Your task to perform on an android device: Open the map Image 0: 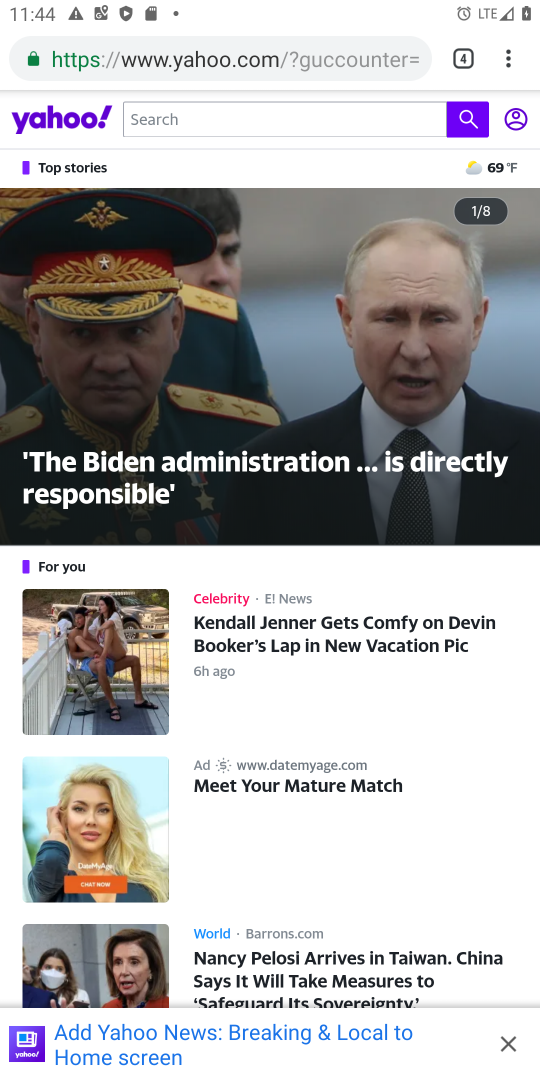
Step 0: press home button
Your task to perform on an android device: Open the map Image 1: 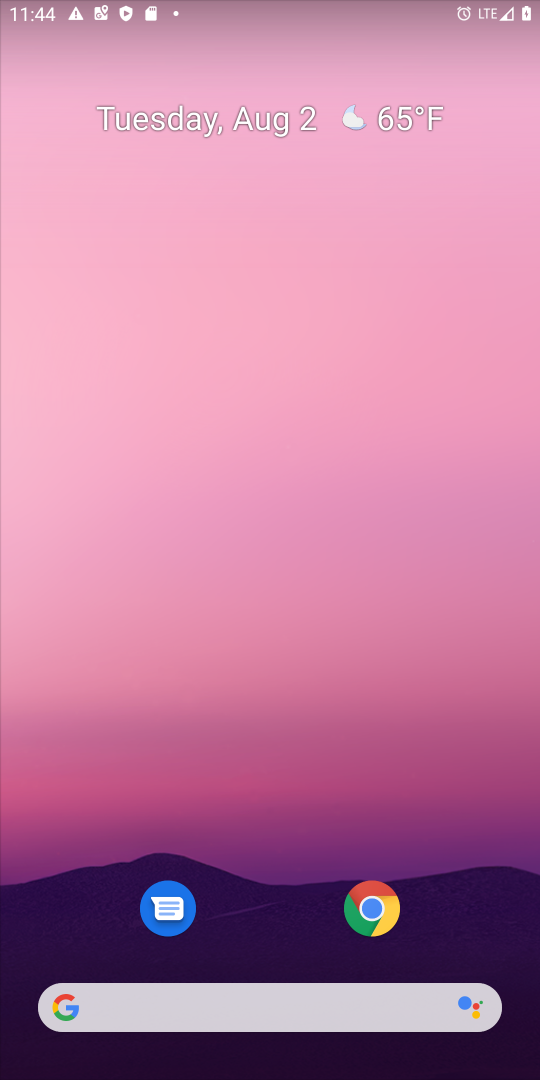
Step 1: drag from (290, 653) to (407, 189)
Your task to perform on an android device: Open the map Image 2: 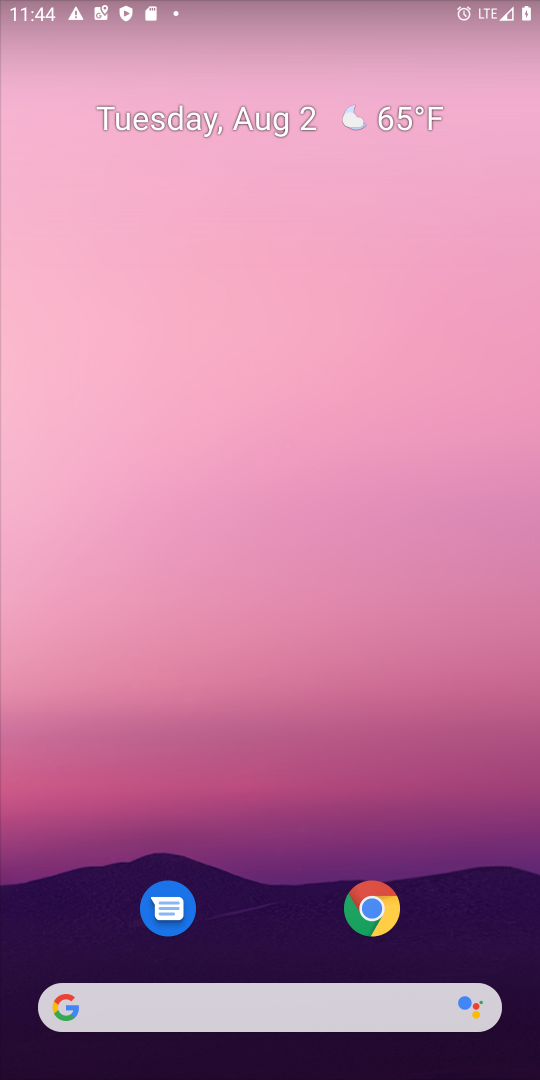
Step 2: drag from (264, 710) to (269, 2)
Your task to perform on an android device: Open the map Image 3: 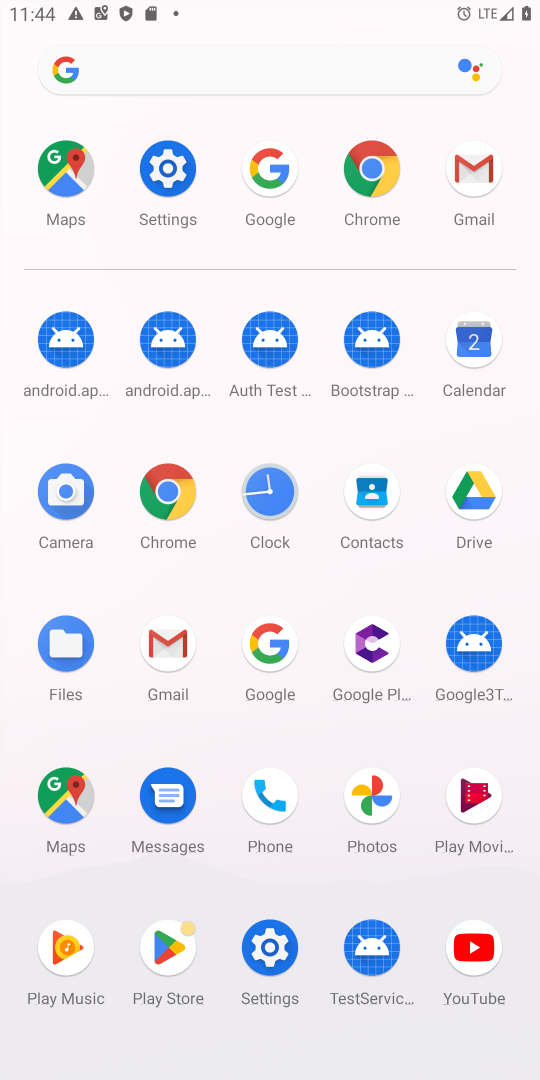
Step 3: click (56, 814)
Your task to perform on an android device: Open the map Image 4: 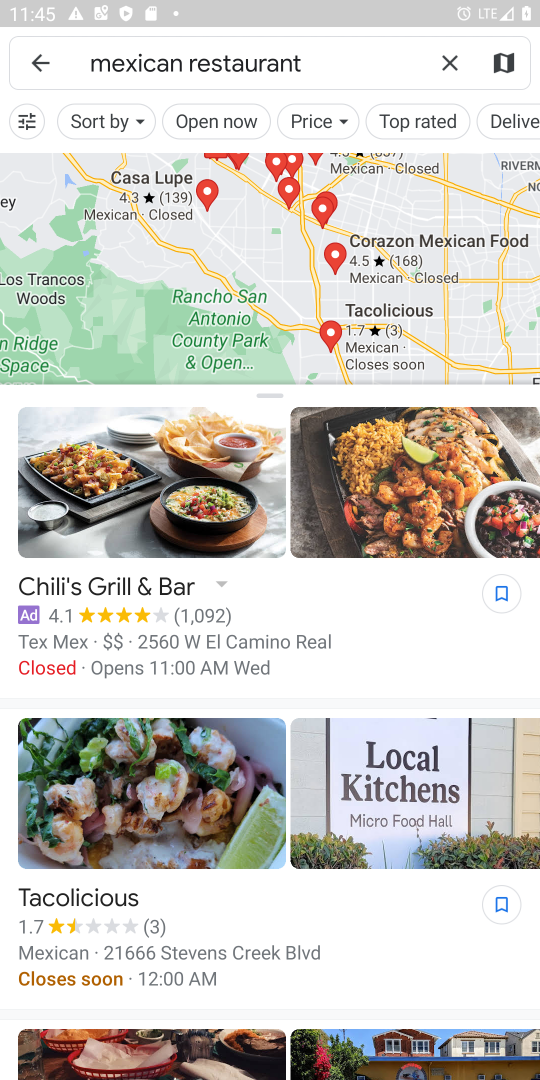
Step 4: task complete